Your task to perform on an android device: turn off location Image 0: 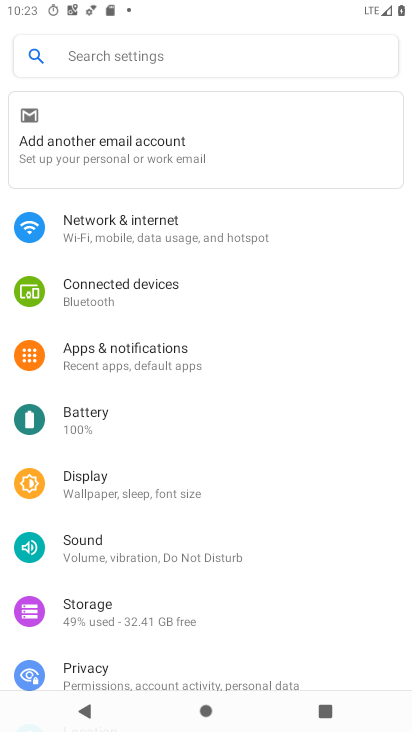
Step 0: press home button
Your task to perform on an android device: turn off location Image 1: 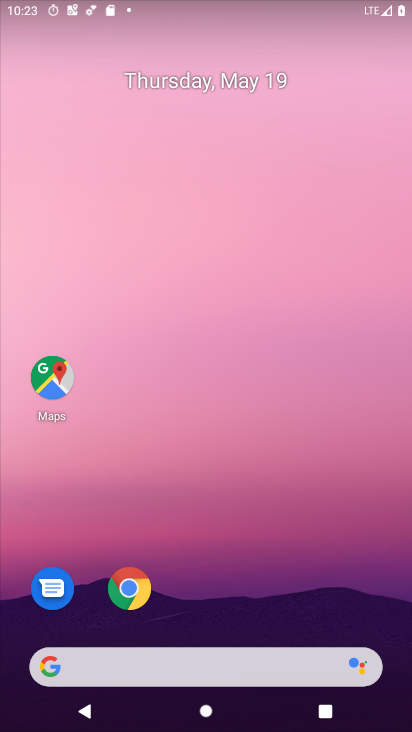
Step 1: drag from (171, 666) to (266, 124)
Your task to perform on an android device: turn off location Image 2: 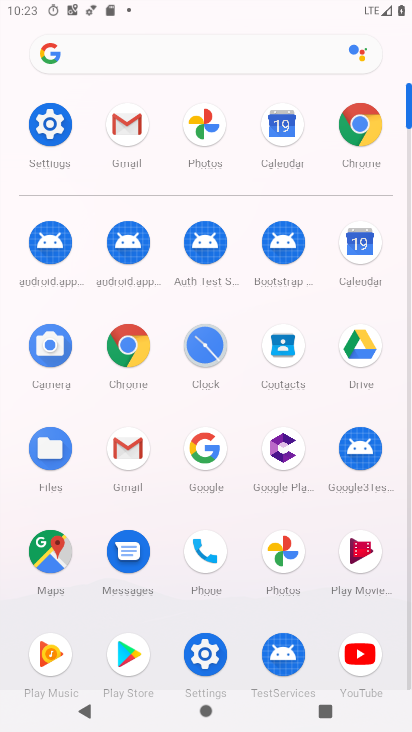
Step 2: click (44, 133)
Your task to perform on an android device: turn off location Image 3: 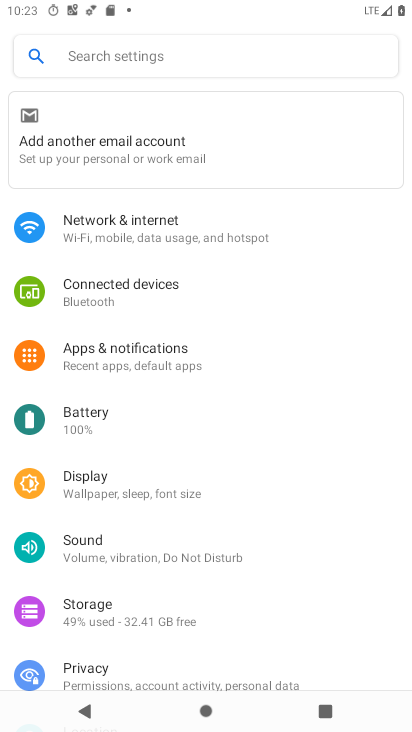
Step 3: drag from (302, 593) to (361, 208)
Your task to perform on an android device: turn off location Image 4: 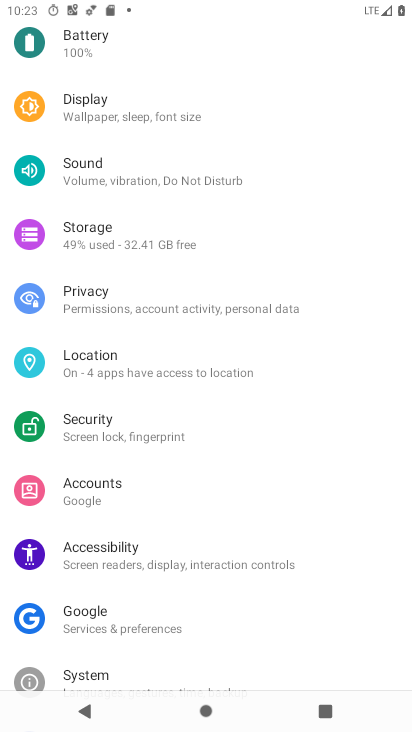
Step 4: click (122, 370)
Your task to perform on an android device: turn off location Image 5: 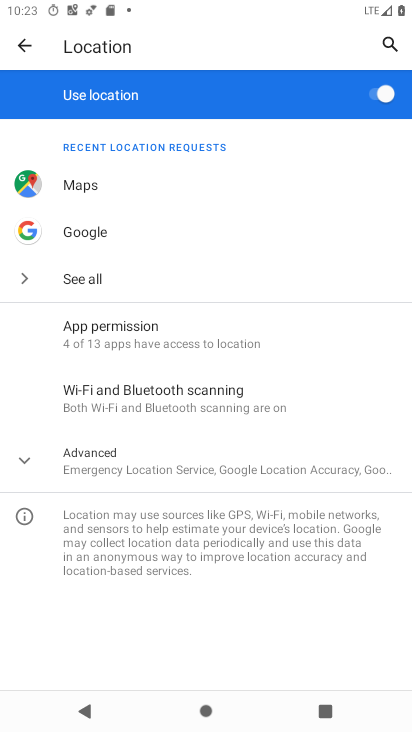
Step 5: click (371, 97)
Your task to perform on an android device: turn off location Image 6: 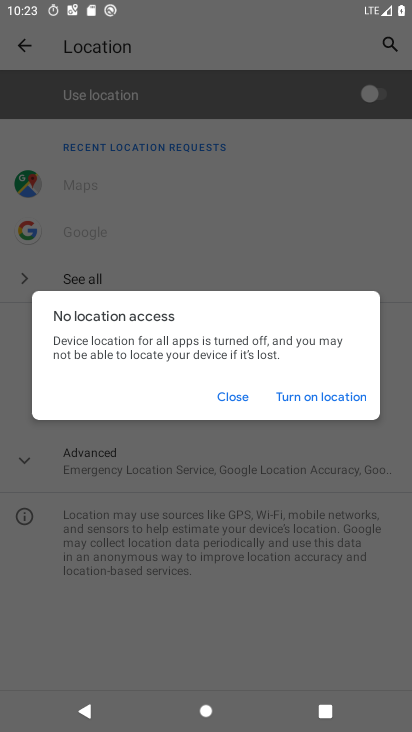
Step 6: task complete